Your task to perform on an android device: check the backup settings in the google photos Image 0: 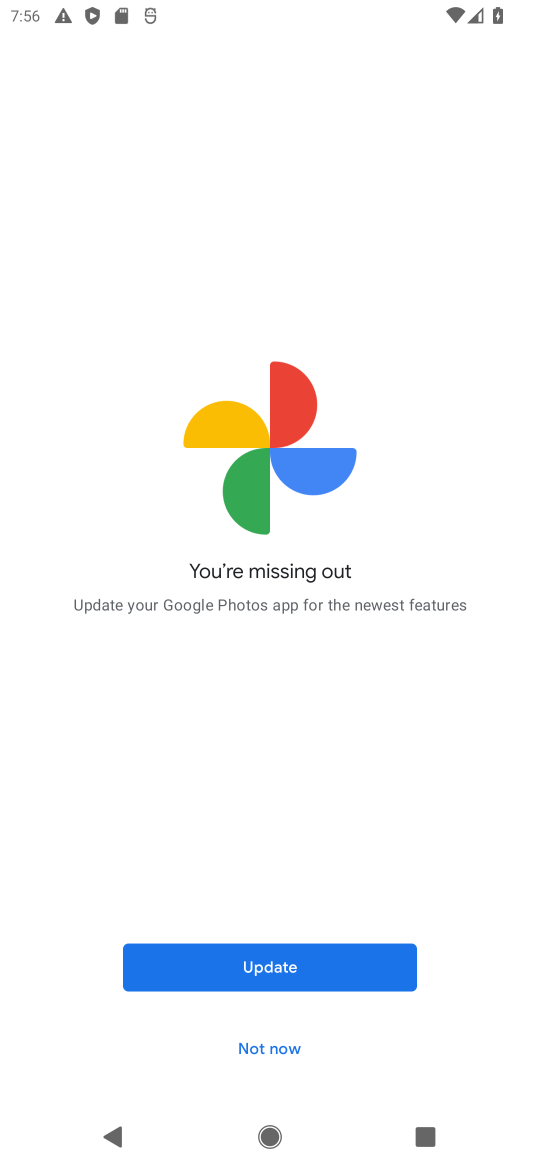
Step 0: click (266, 1045)
Your task to perform on an android device: check the backup settings in the google photos Image 1: 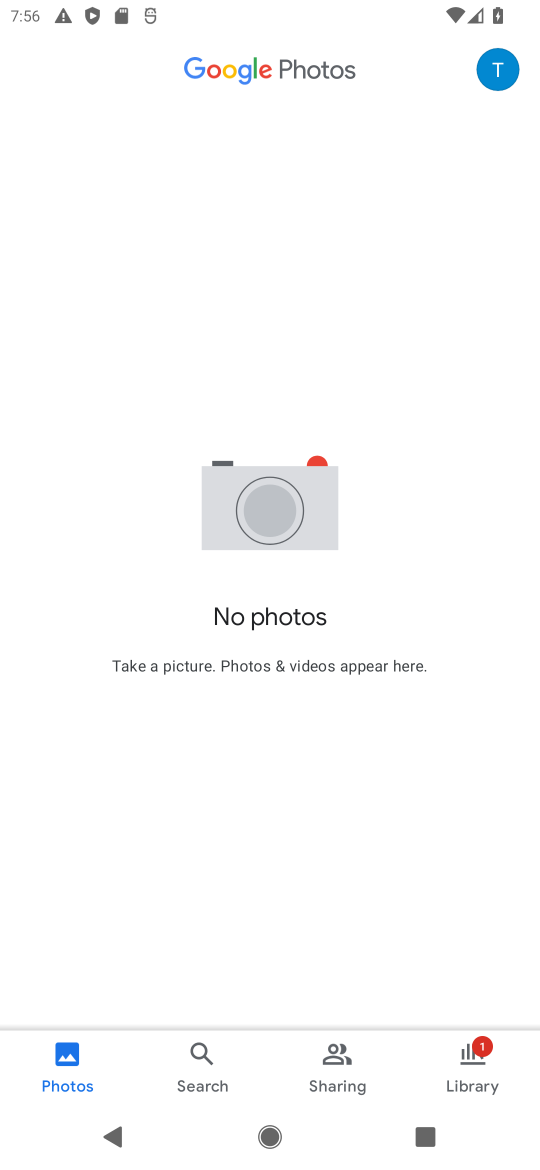
Step 1: click (507, 79)
Your task to perform on an android device: check the backup settings in the google photos Image 2: 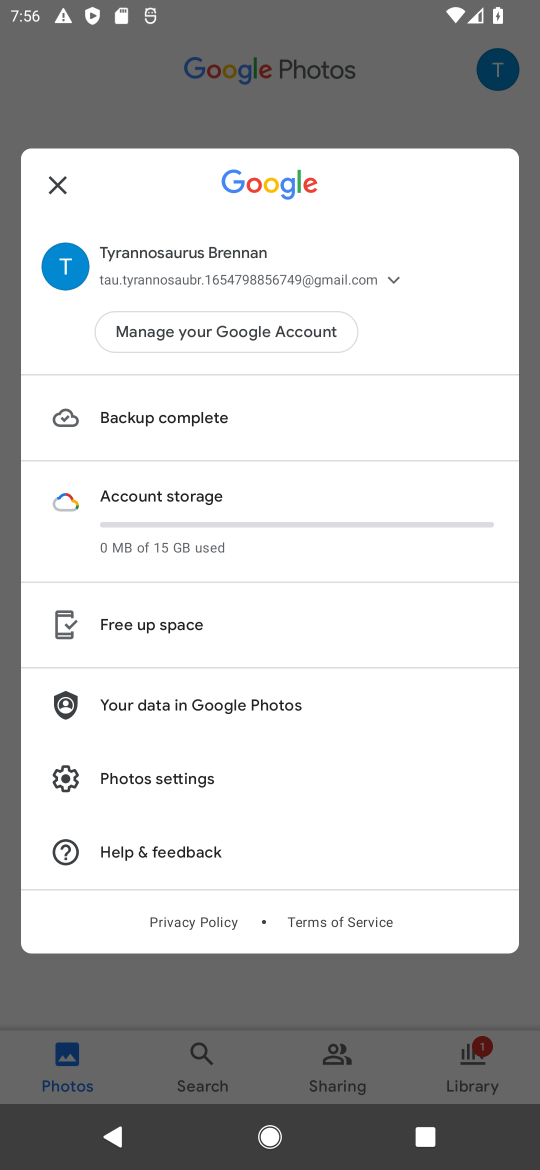
Step 2: click (179, 413)
Your task to perform on an android device: check the backup settings in the google photos Image 3: 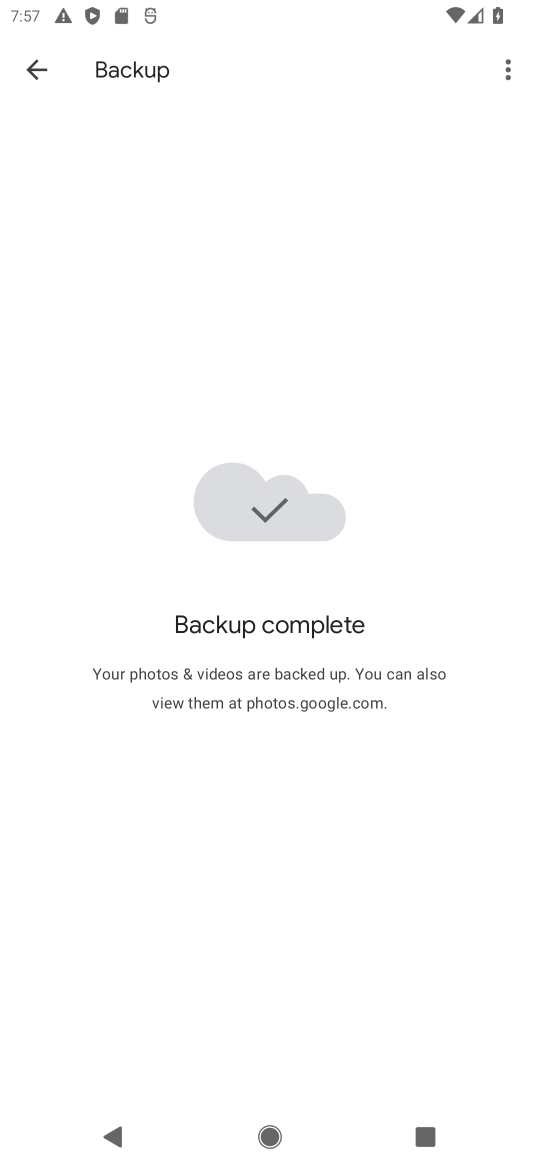
Step 3: task complete